Your task to perform on an android device: Search for flights from Helsinki to Tokyo Image 0: 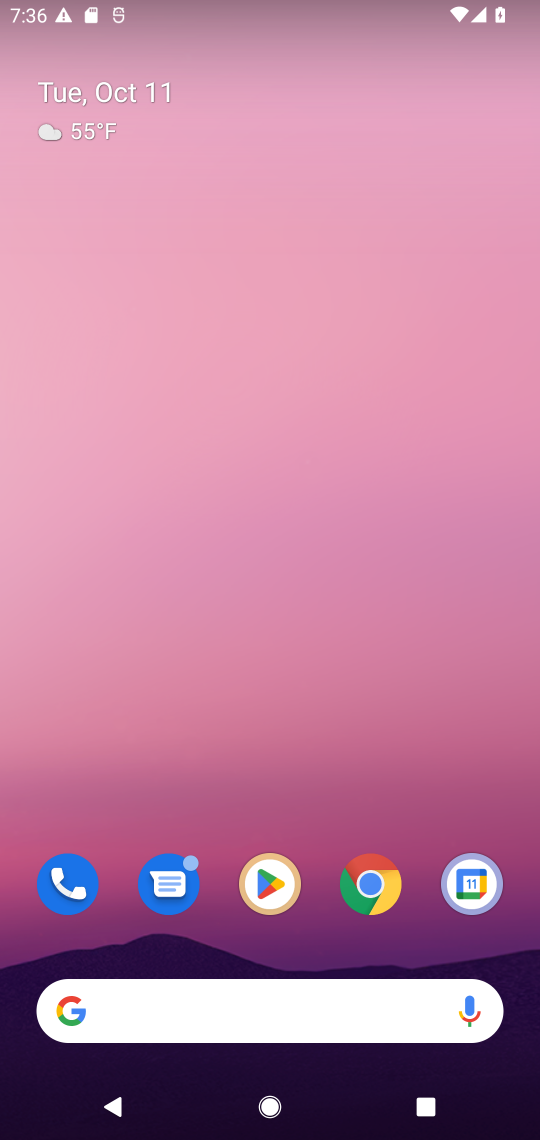
Step 0: drag from (297, 941) to (276, 36)
Your task to perform on an android device: Search for flights from Helsinki to Tokyo Image 1: 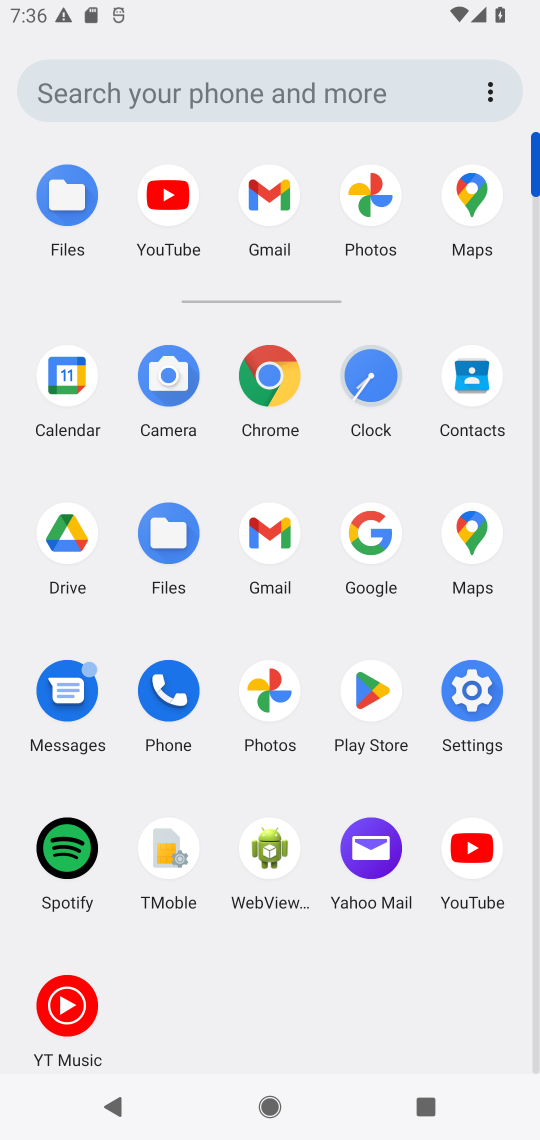
Step 1: click (359, 538)
Your task to perform on an android device: Search for flights from Helsinki to Tokyo Image 2: 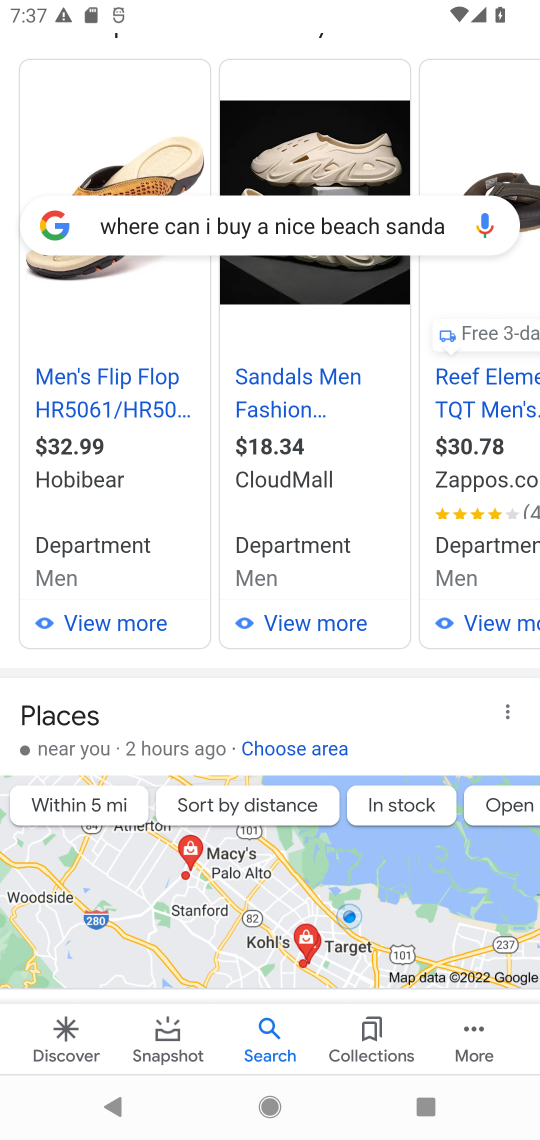
Step 2: drag from (248, 263) to (286, 971)
Your task to perform on an android device: Search for flights from Helsinki to Tokyo Image 3: 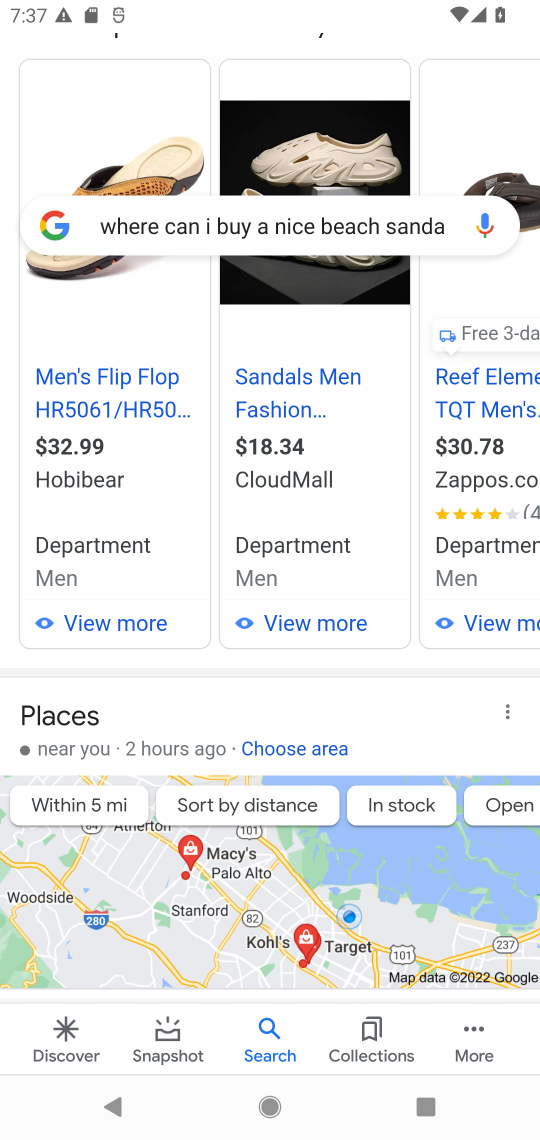
Step 3: drag from (308, 380) to (239, 837)
Your task to perform on an android device: Search for flights from Helsinki to Tokyo Image 4: 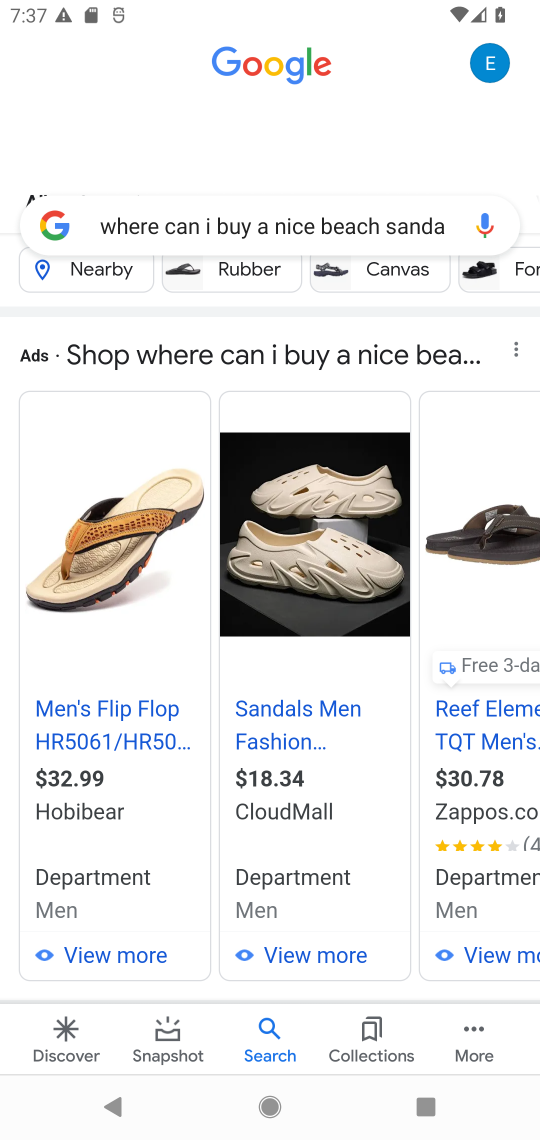
Step 4: click (301, 213)
Your task to perform on an android device: Search for flights from Helsinki to Tokyo Image 5: 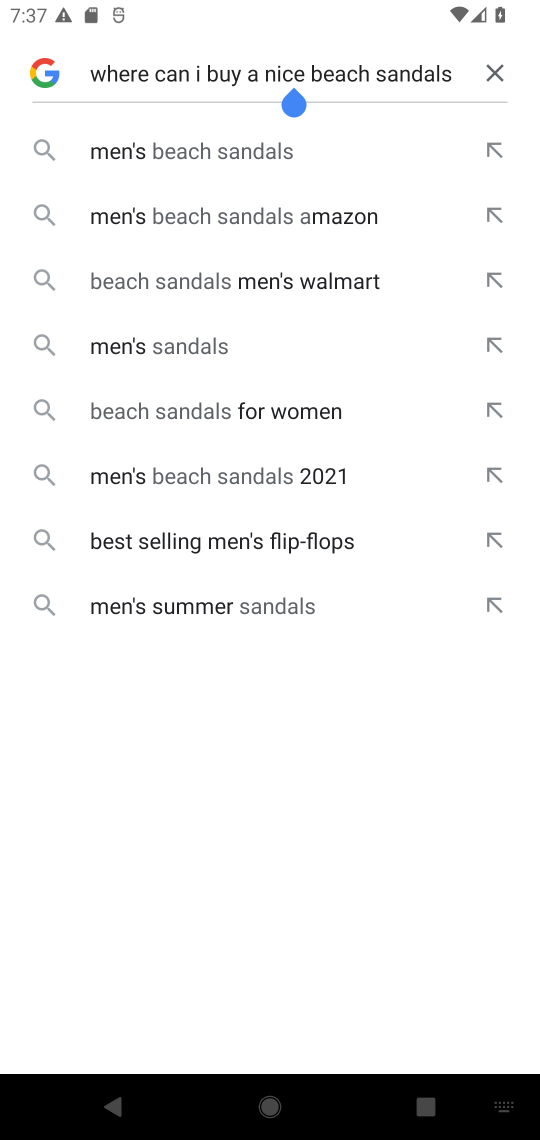
Step 5: click (497, 67)
Your task to perform on an android device: Search for flights from Helsinki to Tokyo Image 6: 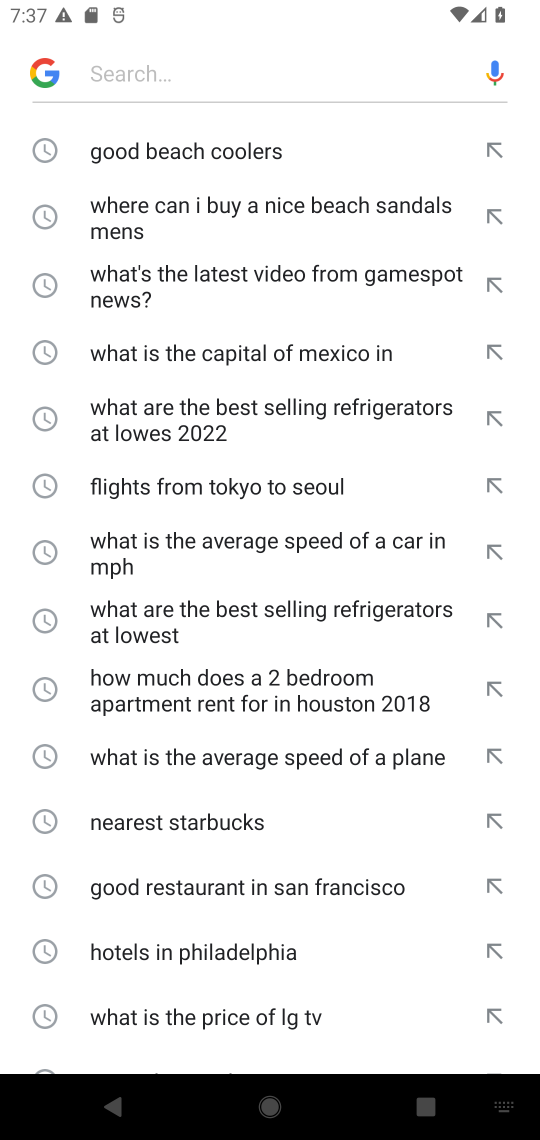
Step 6: type "flights from Helsinki to Tokyo"
Your task to perform on an android device: Search for flights from Helsinki to Tokyo Image 7: 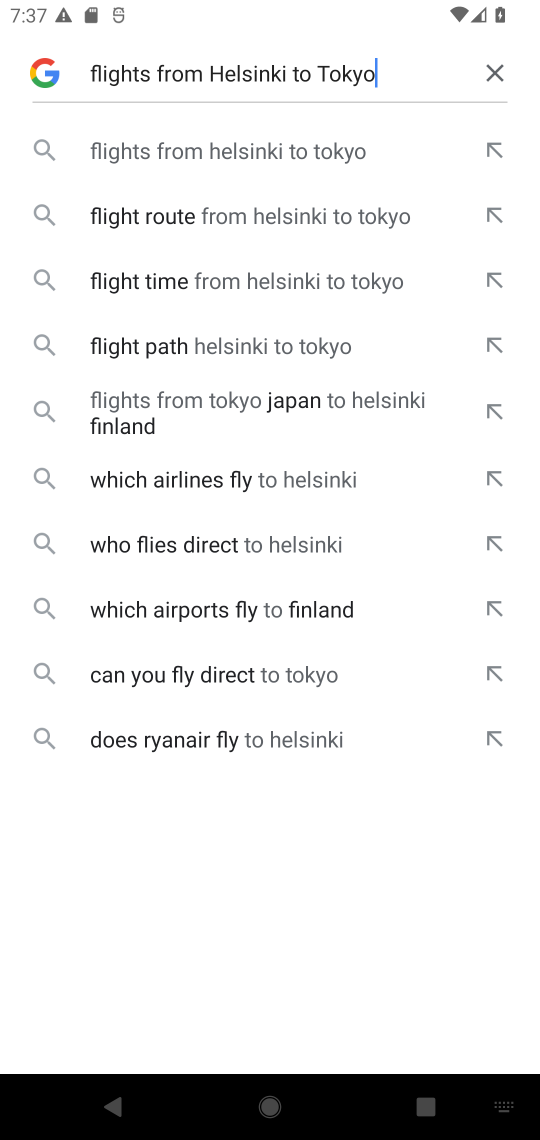
Step 7: click (309, 150)
Your task to perform on an android device: Search for flights from Helsinki to Tokyo Image 8: 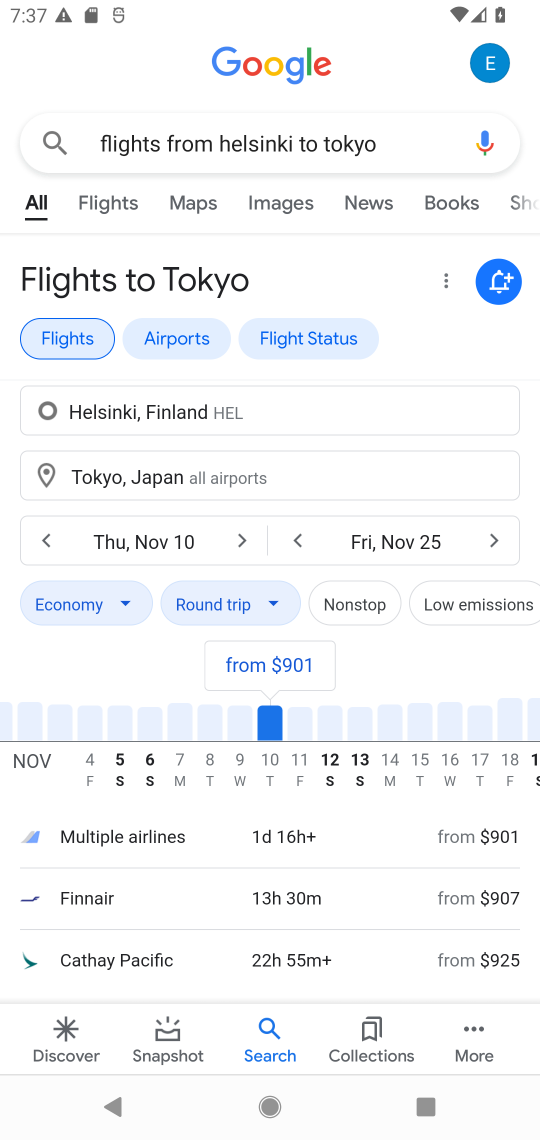
Step 8: task complete